Your task to perform on an android device: turn off notifications in google photos Image 0: 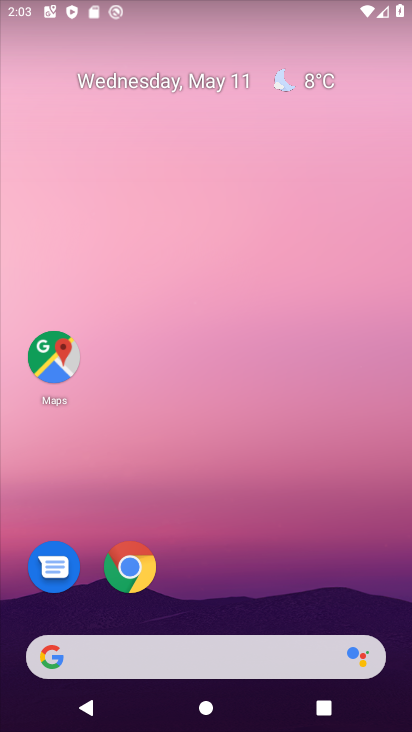
Step 0: drag from (270, 573) to (176, 142)
Your task to perform on an android device: turn off notifications in google photos Image 1: 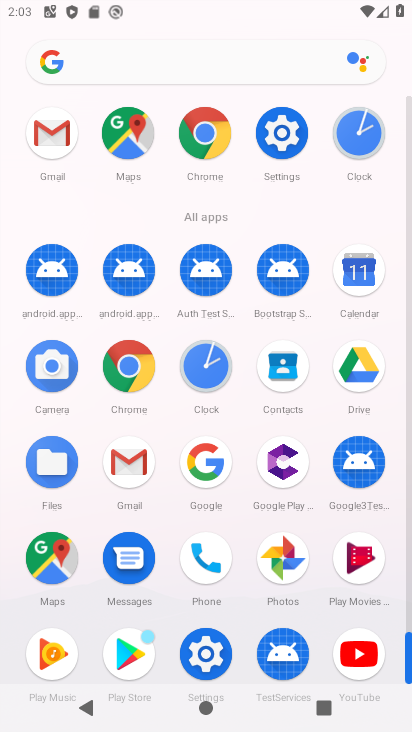
Step 1: click (285, 552)
Your task to perform on an android device: turn off notifications in google photos Image 2: 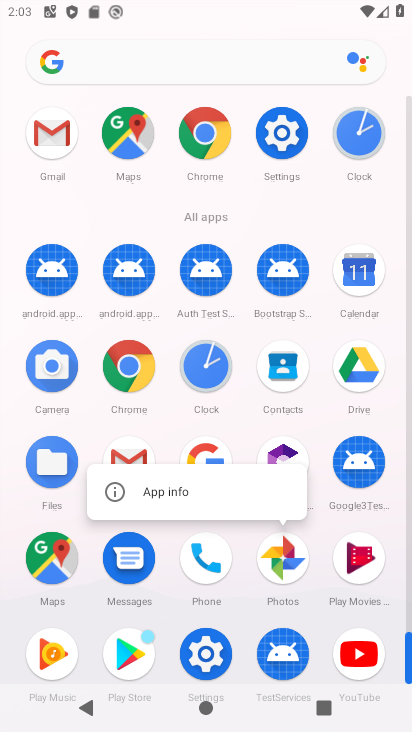
Step 2: click (213, 494)
Your task to perform on an android device: turn off notifications in google photos Image 3: 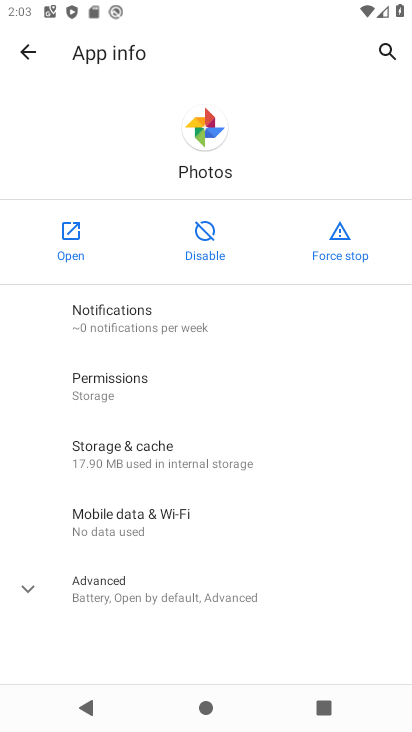
Step 3: click (133, 305)
Your task to perform on an android device: turn off notifications in google photos Image 4: 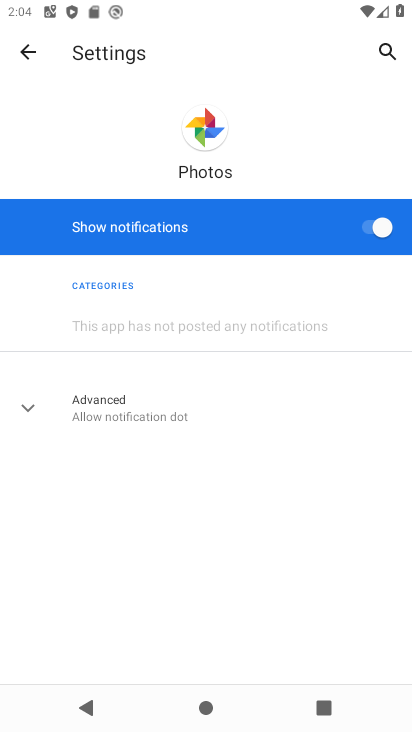
Step 4: click (378, 231)
Your task to perform on an android device: turn off notifications in google photos Image 5: 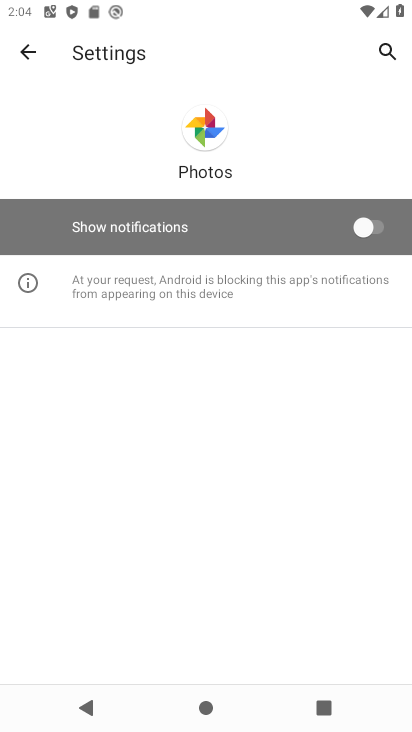
Step 5: task complete